Your task to perform on an android device: Empty the shopping cart on walmart. Add dell xps to the cart on walmart Image 0: 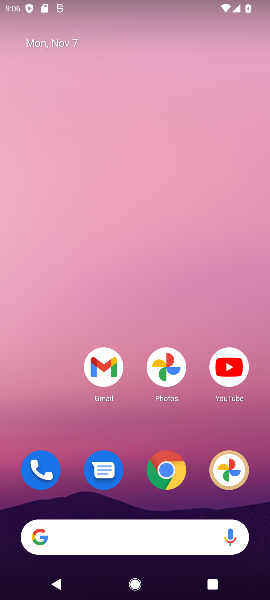
Step 0: click (157, 471)
Your task to perform on an android device: Empty the shopping cart on walmart. Add dell xps to the cart on walmart Image 1: 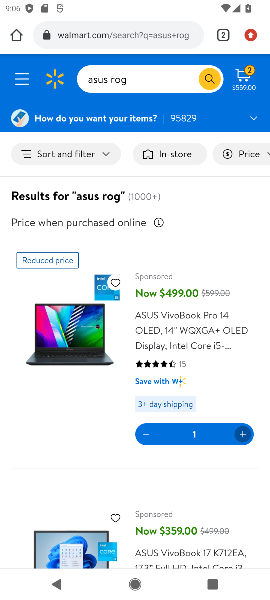
Step 1: click (250, 78)
Your task to perform on an android device: Empty the shopping cart on walmart. Add dell xps to the cart on walmart Image 2: 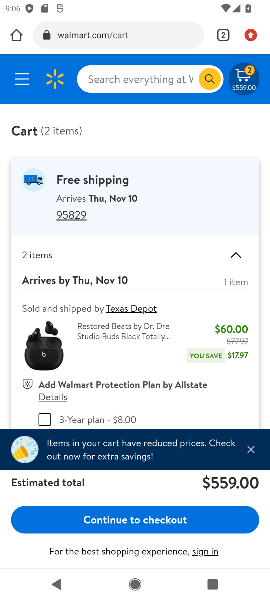
Step 2: drag from (158, 360) to (136, 111)
Your task to perform on an android device: Empty the shopping cart on walmart. Add dell xps to the cart on walmart Image 3: 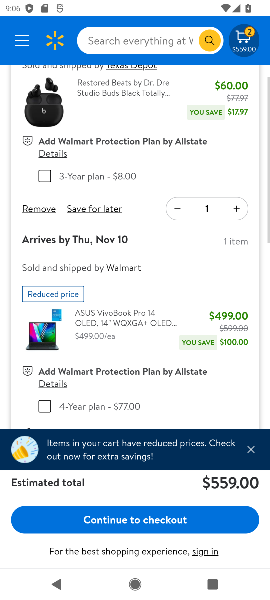
Step 3: click (249, 448)
Your task to perform on an android device: Empty the shopping cart on walmart. Add dell xps to the cart on walmart Image 4: 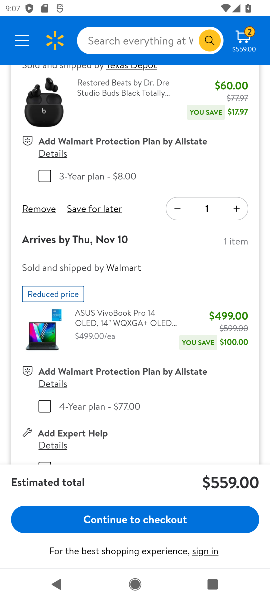
Step 4: click (37, 209)
Your task to perform on an android device: Empty the shopping cart on walmart. Add dell xps to the cart on walmart Image 5: 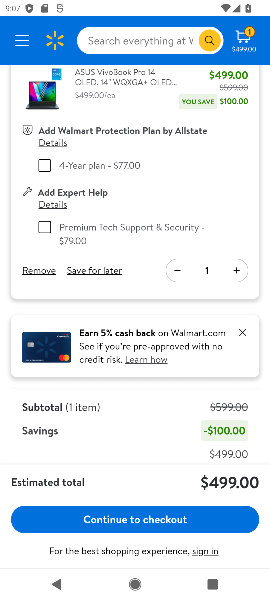
Step 5: click (37, 270)
Your task to perform on an android device: Empty the shopping cart on walmart. Add dell xps to the cart on walmart Image 6: 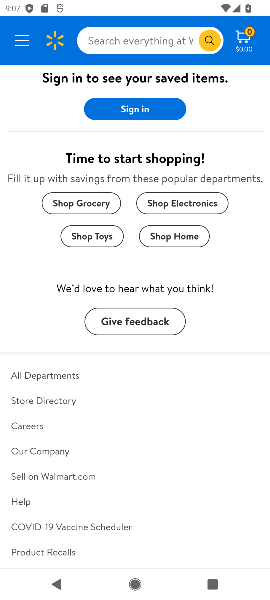
Step 6: click (112, 45)
Your task to perform on an android device: Empty the shopping cart on walmart. Add dell xps to the cart on walmart Image 7: 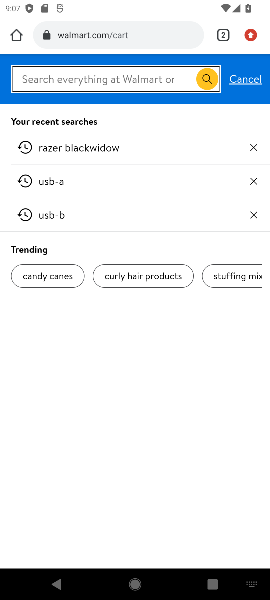
Step 7: type "dell xps"
Your task to perform on an android device: Empty the shopping cart on walmart. Add dell xps to the cart on walmart Image 8: 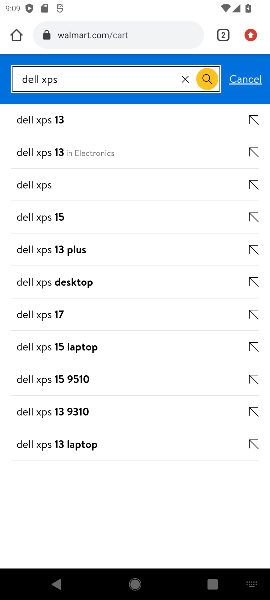
Step 8: click (79, 117)
Your task to perform on an android device: Empty the shopping cart on walmart. Add dell xps to the cart on walmart Image 9: 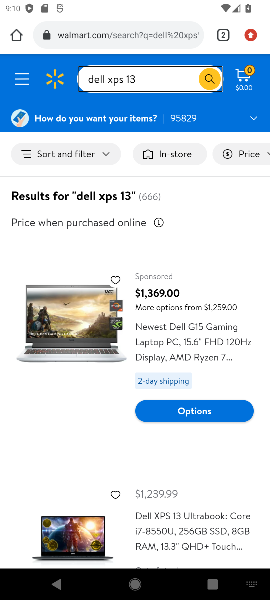
Step 9: task complete